Your task to perform on an android device: open app "Reddit" Image 0: 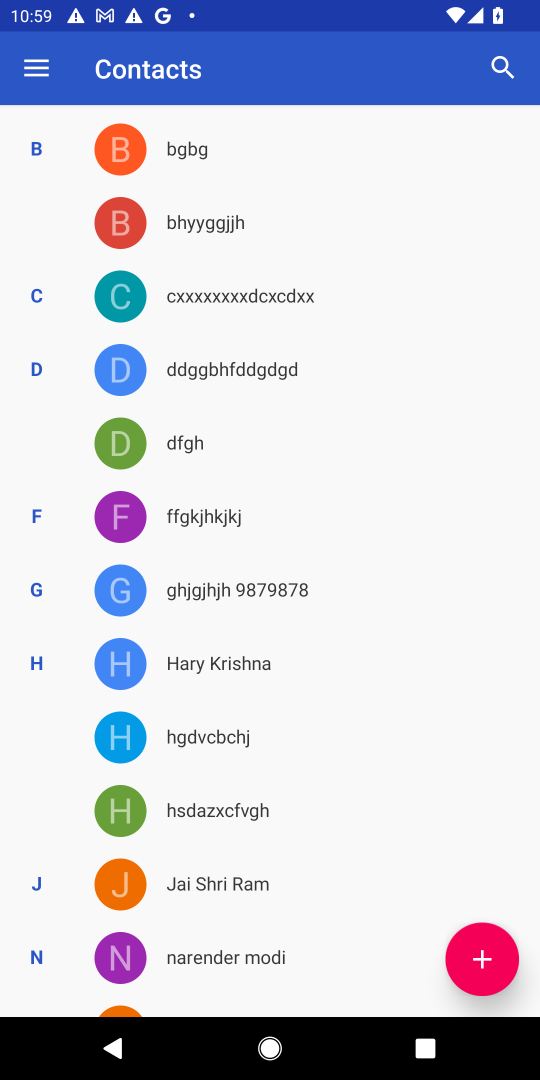
Step 0: press home button
Your task to perform on an android device: open app "Reddit" Image 1: 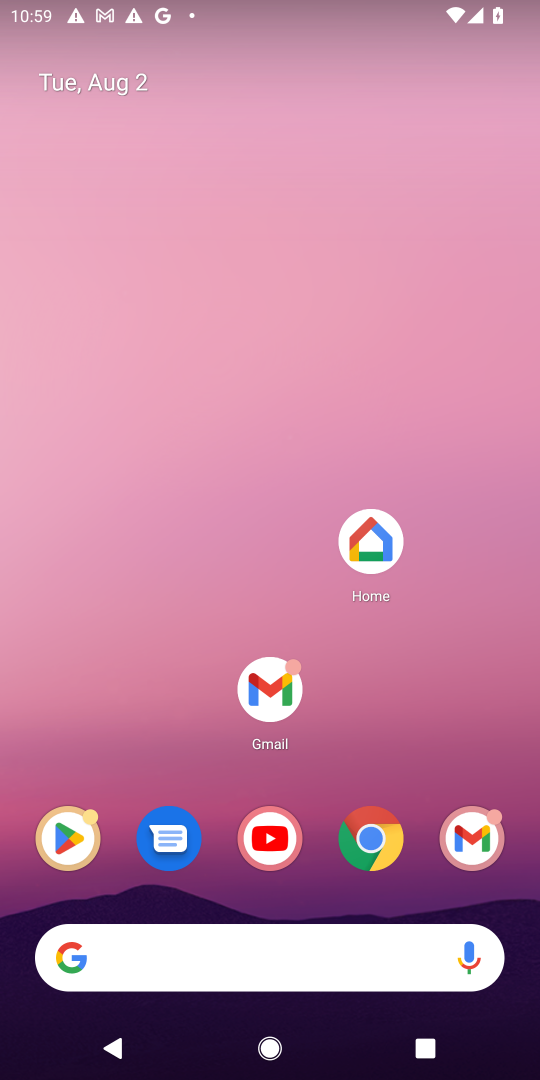
Step 1: drag from (364, 678) to (384, 146)
Your task to perform on an android device: open app "Reddit" Image 2: 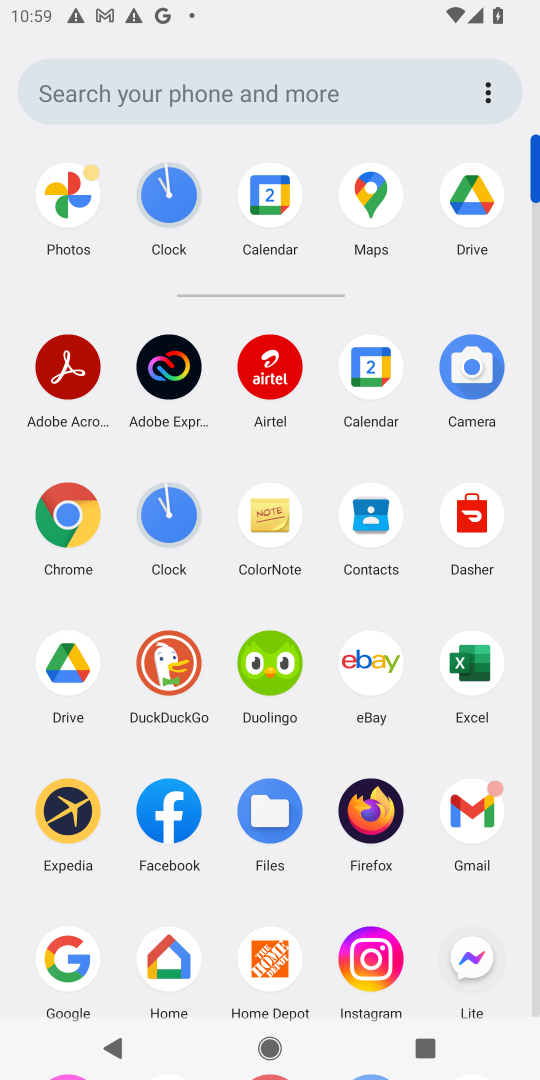
Step 2: drag from (419, 889) to (416, 535)
Your task to perform on an android device: open app "Reddit" Image 3: 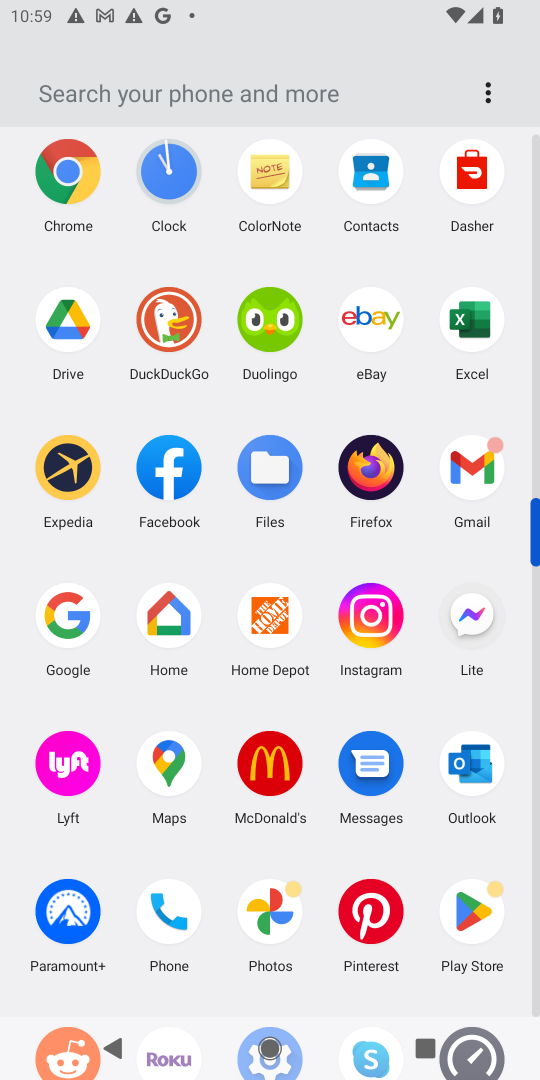
Step 3: drag from (368, 967) to (402, 576)
Your task to perform on an android device: open app "Reddit" Image 4: 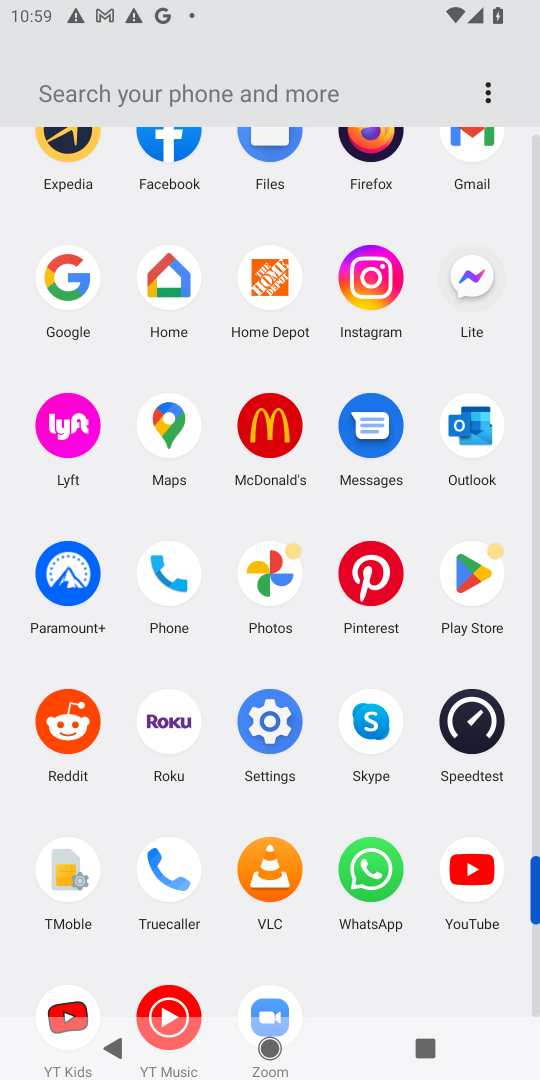
Step 4: click (477, 575)
Your task to perform on an android device: open app "Reddit" Image 5: 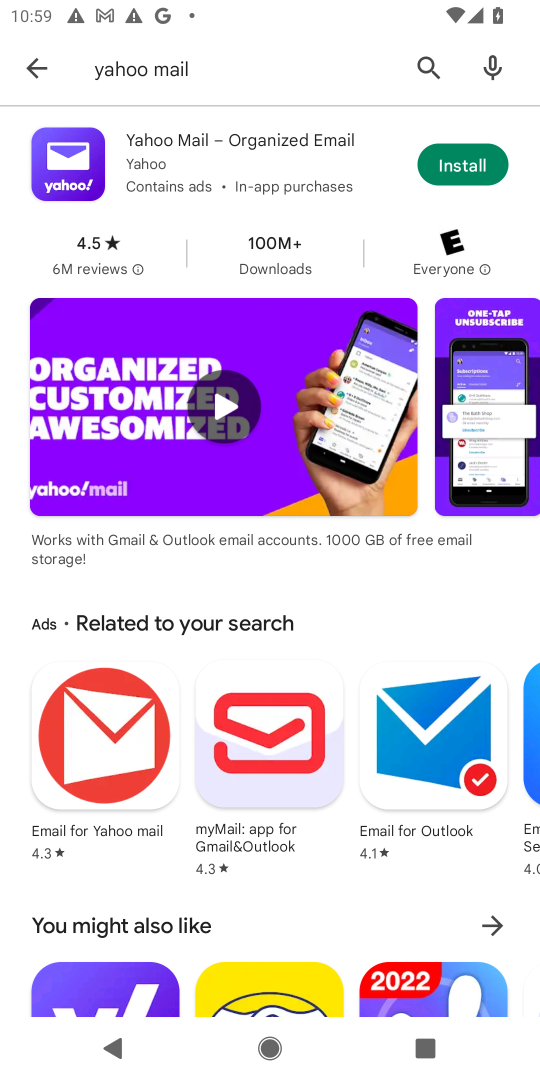
Step 5: click (427, 58)
Your task to perform on an android device: open app "Reddit" Image 6: 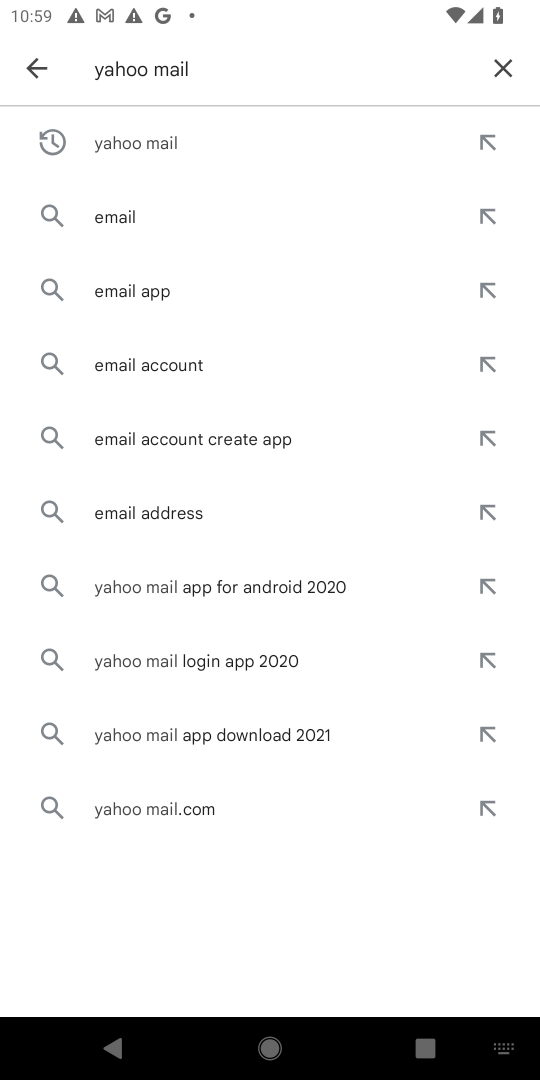
Step 6: click (491, 70)
Your task to perform on an android device: open app "Reddit" Image 7: 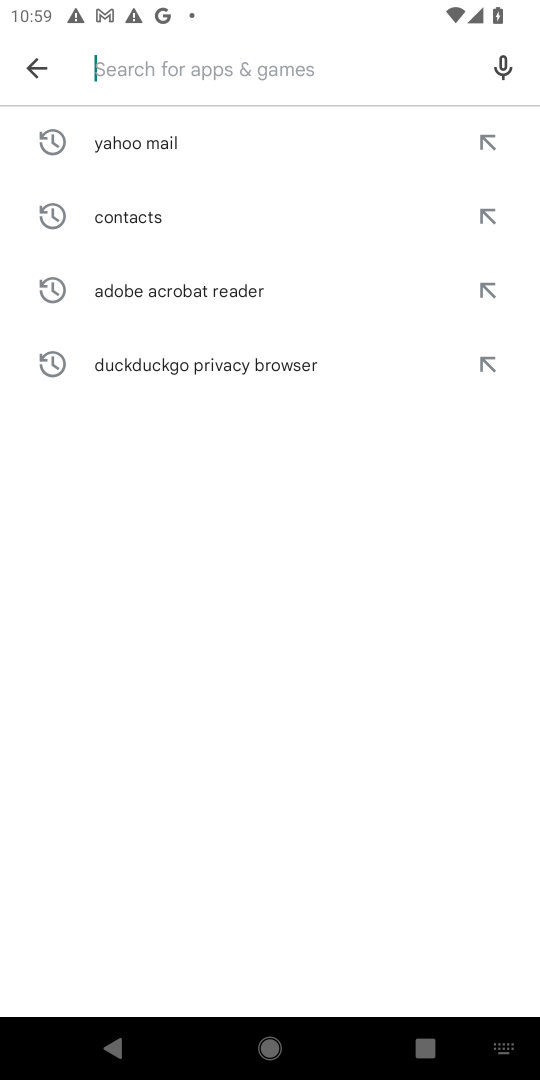
Step 7: click (273, 65)
Your task to perform on an android device: open app "Reddit" Image 8: 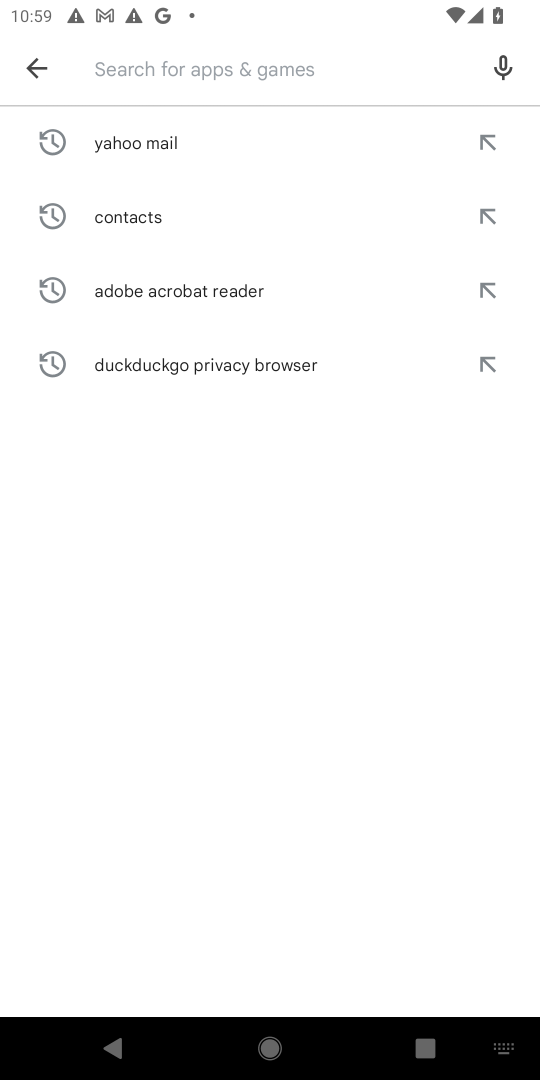
Step 8: type "reddit"
Your task to perform on an android device: open app "Reddit" Image 9: 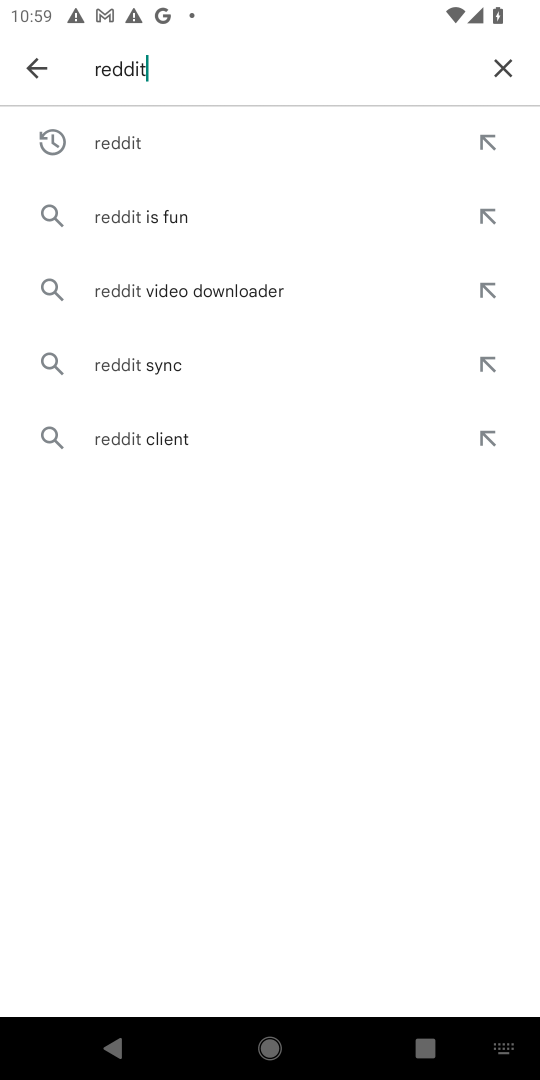
Step 9: click (206, 145)
Your task to perform on an android device: open app "Reddit" Image 10: 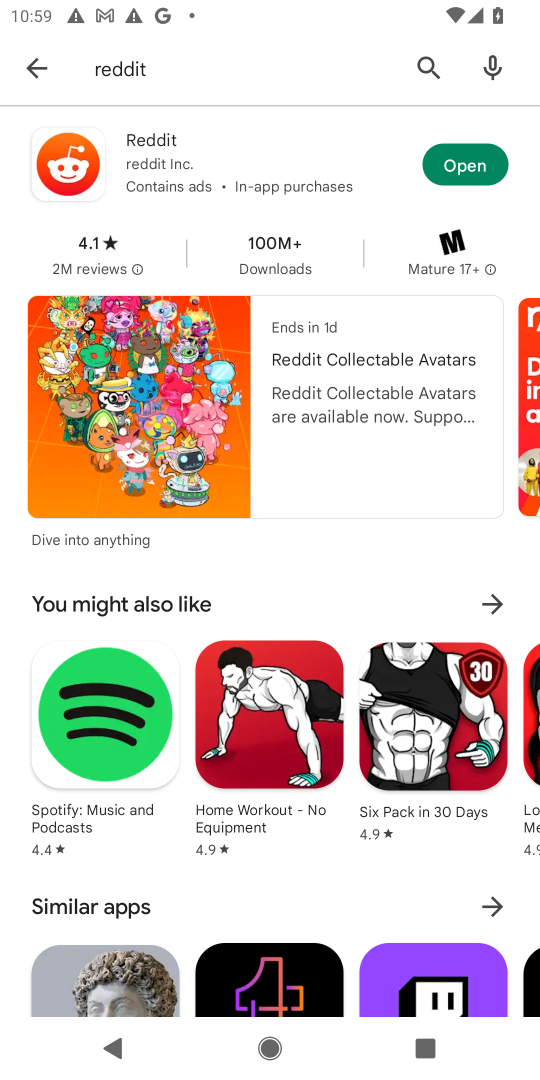
Step 10: click (457, 170)
Your task to perform on an android device: open app "Reddit" Image 11: 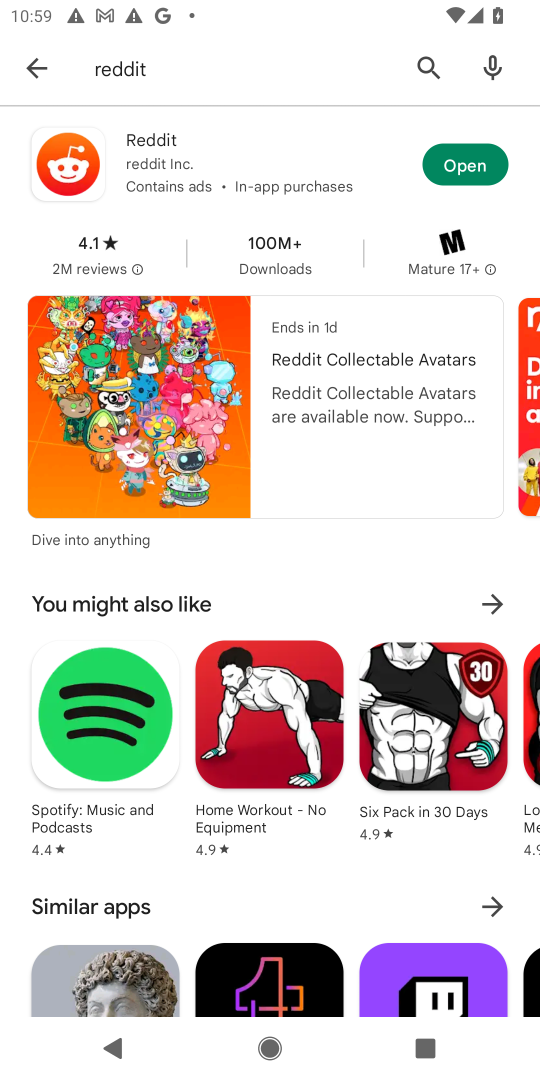
Step 11: click (459, 162)
Your task to perform on an android device: open app "Reddit" Image 12: 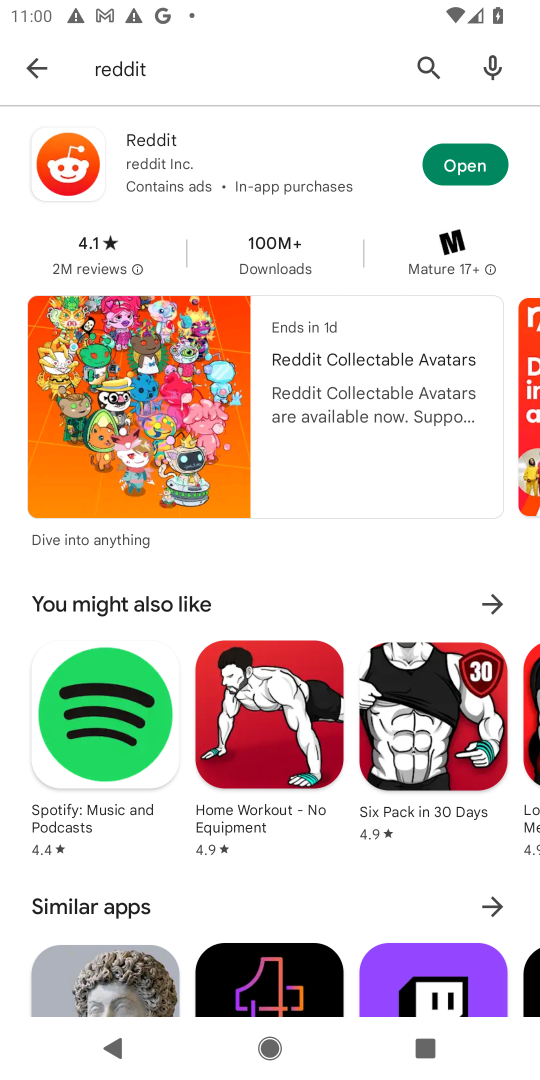
Step 12: task complete